Your task to perform on an android device: toggle notifications settings in the gmail app Image 0: 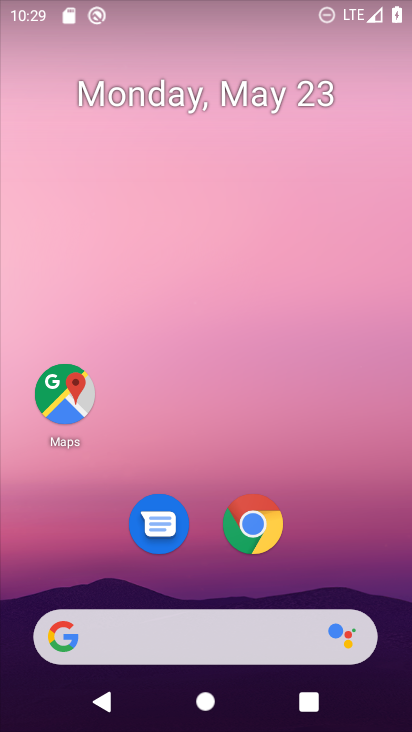
Step 0: drag from (288, 456) to (264, 50)
Your task to perform on an android device: toggle notifications settings in the gmail app Image 1: 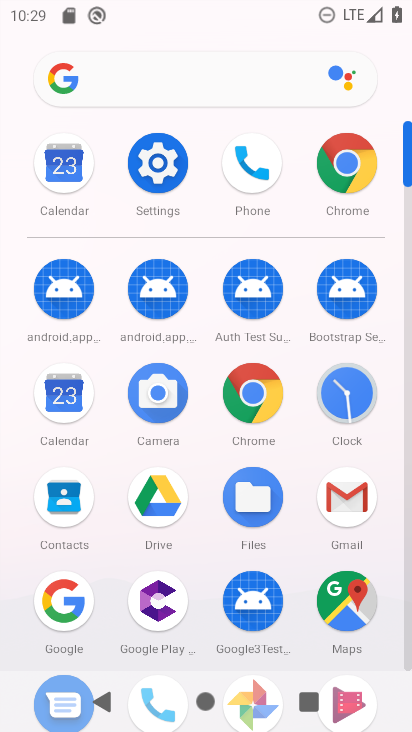
Step 1: click (352, 491)
Your task to perform on an android device: toggle notifications settings in the gmail app Image 2: 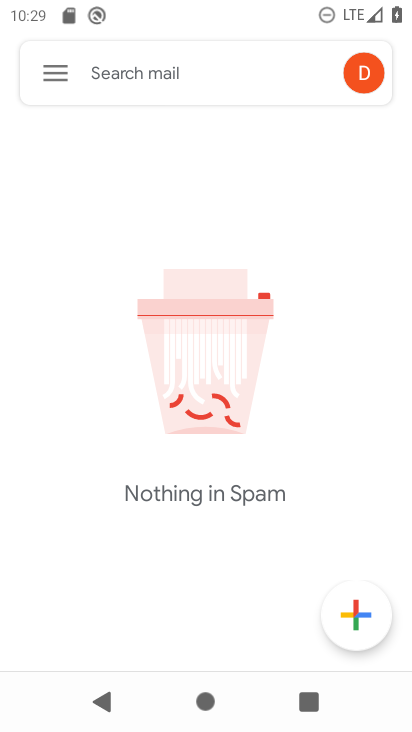
Step 2: click (60, 73)
Your task to perform on an android device: toggle notifications settings in the gmail app Image 3: 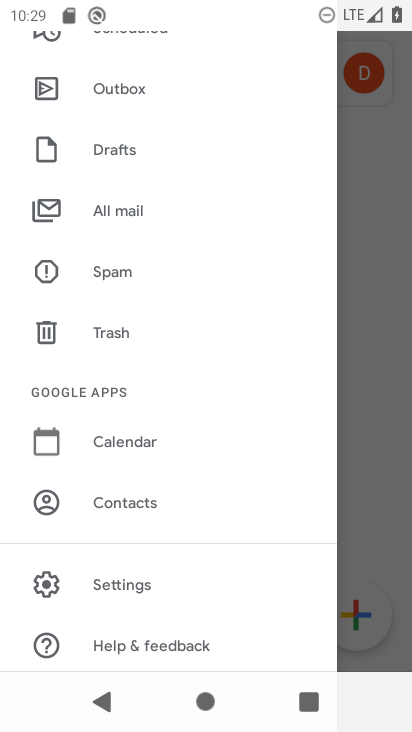
Step 3: click (166, 580)
Your task to perform on an android device: toggle notifications settings in the gmail app Image 4: 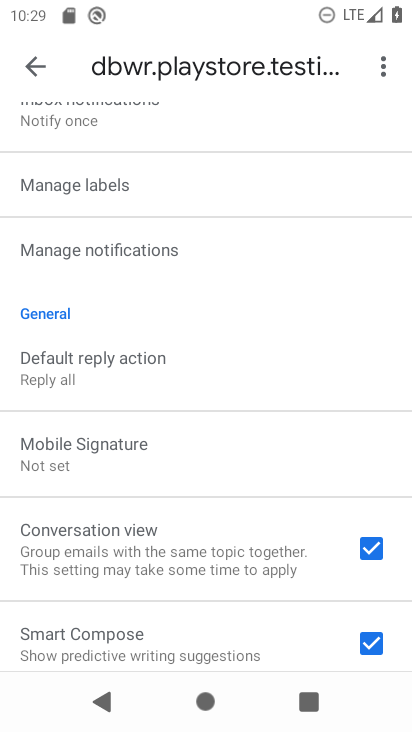
Step 4: click (198, 248)
Your task to perform on an android device: toggle notifications settings in the gmail app Image 5: 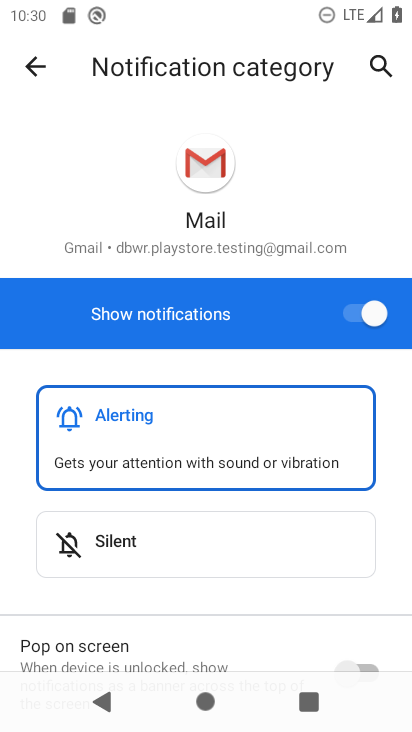
Step 5: click (352, 324)
Your task to perform on an android device: toggle notifications settings in the gmail app Image 6: 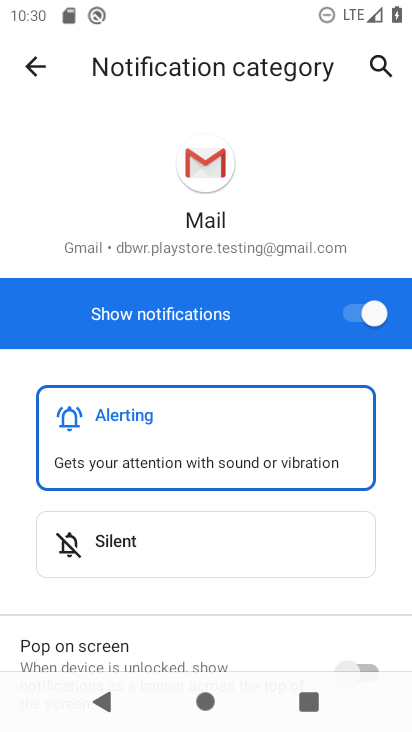
Step 6: click (360, 316)
Your task to perform on an android device: toggle notifications settings in the gmail app Image 7: 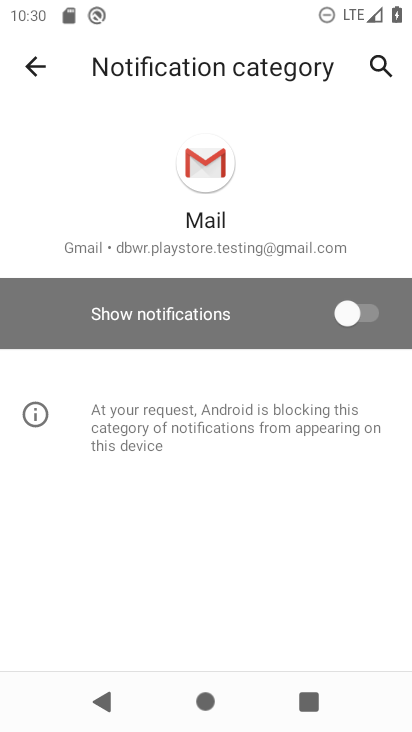
Step 7: task complete